Your task to perform on an android device: What's the weather going to be this weekend? Image 0: 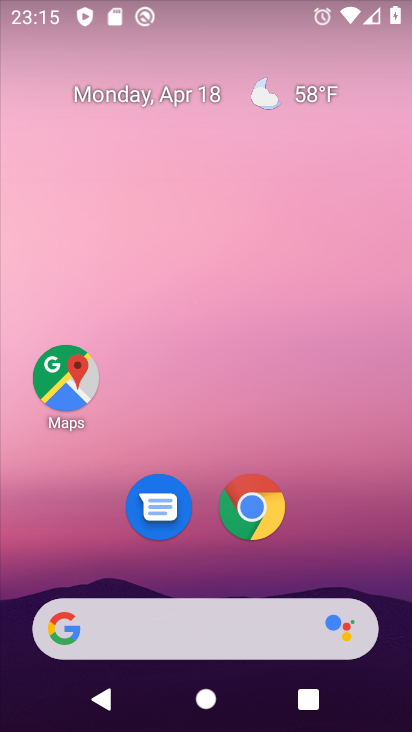
Step 0: click (190, 637)
Your task to perform on an android device: What's the weather going to be this weekend? Image 1: 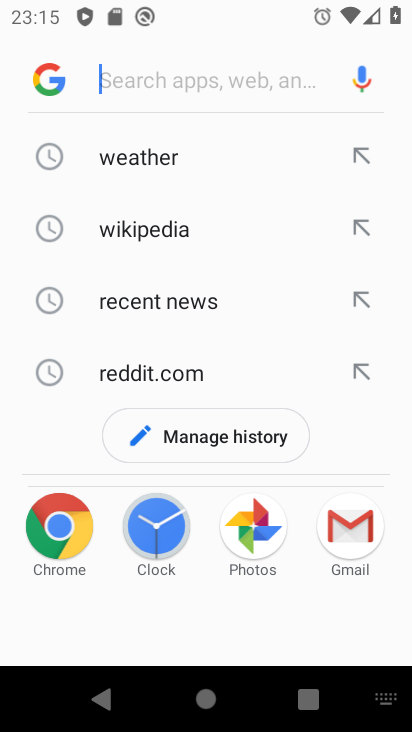
Step 1: click (71, 78)
Your task to perform on an android device: What's the weather going to be this weekend? Image 2: 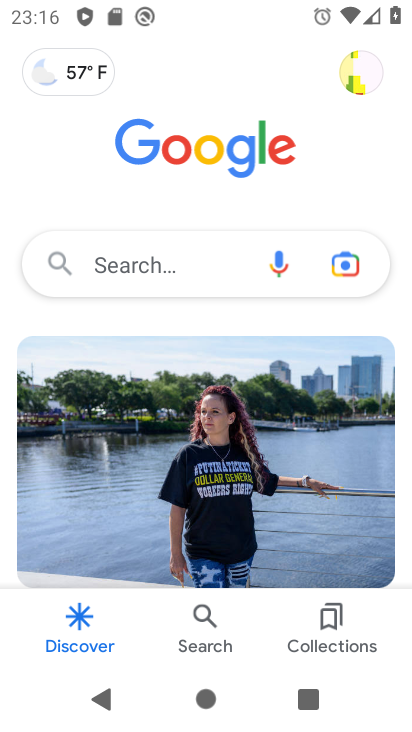
Step 2: click (59, 74)
Your task to perform on an android device: What's the weather going to be this weekend? Image 3: 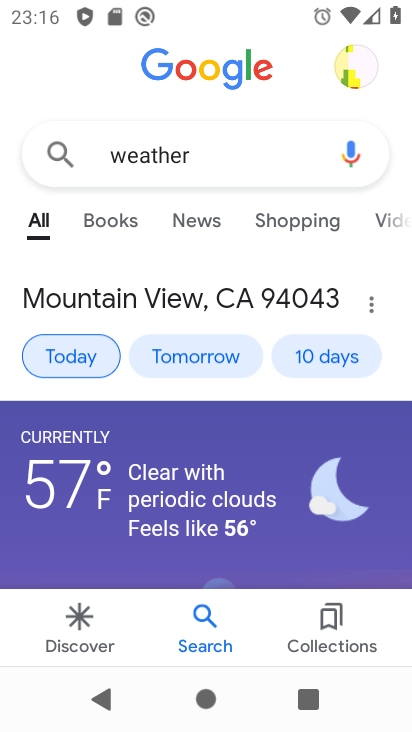
Step 3: click (334, 354)
Your task to perform on an android device: What's the weather going to be this weekend? Image 4: 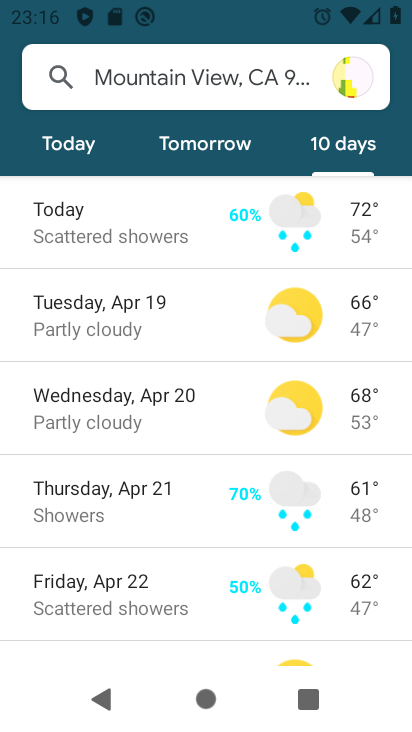
Step 4: drag from (135, 588) to (273, 208)
Your task to perform on an android device: What's the weather going to be this weekend? Image 5: 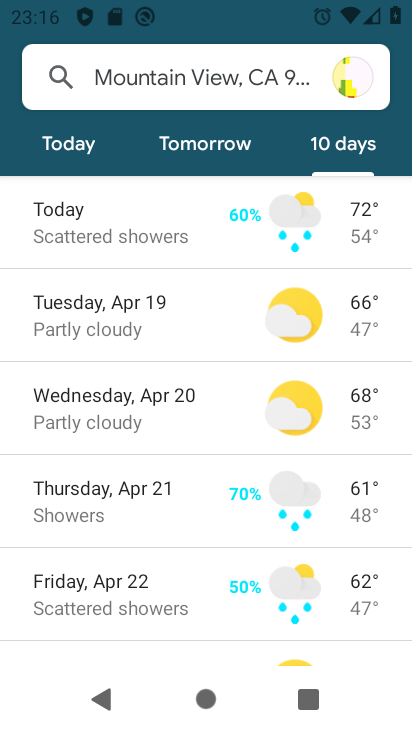
Step 5: drag from (172, 552) to (172, 245)
Your task to perform on an android device: What's the weather going to be this weekend? Image 6: 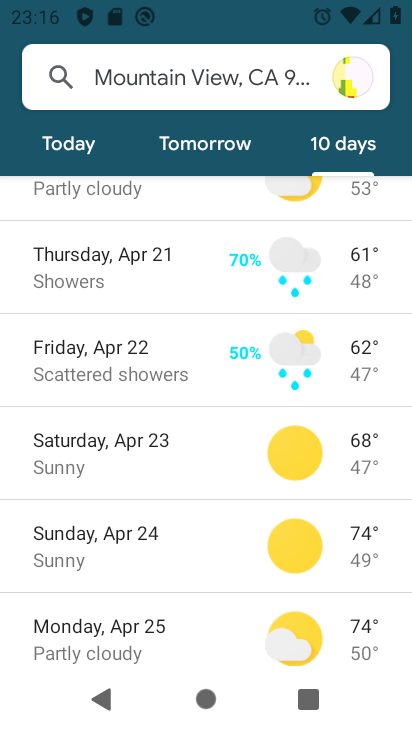
Step 6: click (297, 478)
Your task to perform on an android device: What's the weather going to be this weekend? Image 7: 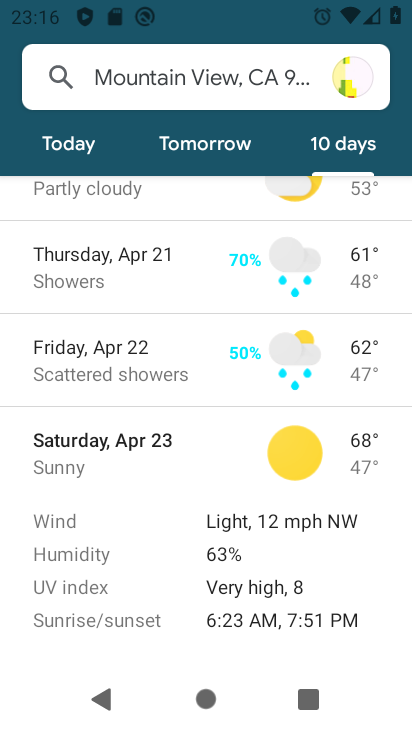
Step 7: task complete